Your task to perform on an android device: Open privacy settings Image 0: 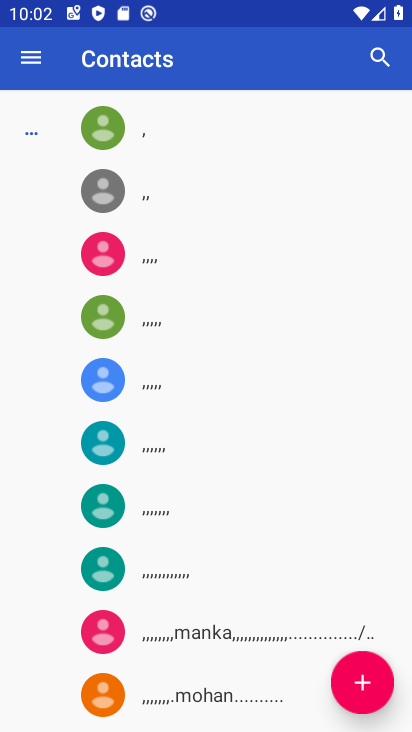
Step 0: press home button
Your task to perform on an android device: Open privacy settings Image 1: 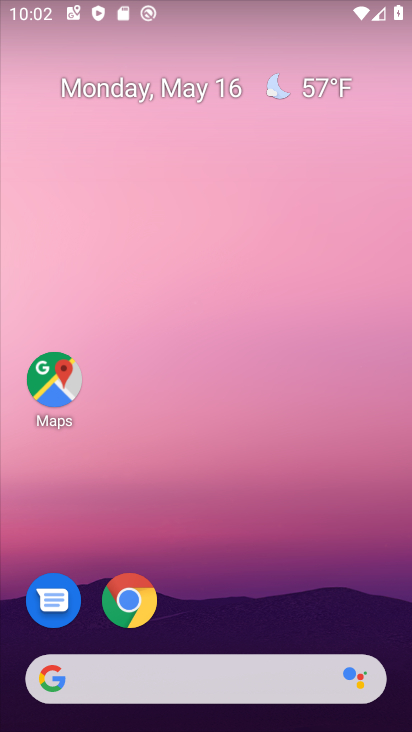
Step 1: drag from (369, 580) to (334, 190)
Your task to perform on an android device: Open privacy settings Image 2: 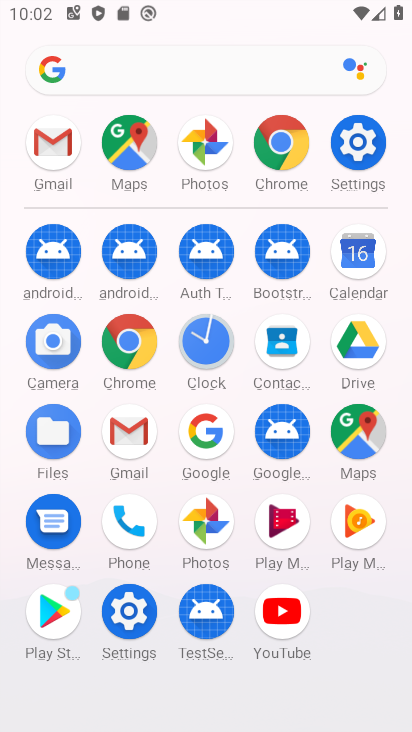
Step 2: click (357, 156)
Your task to perform on an android device: Open privacy settings Image 3: 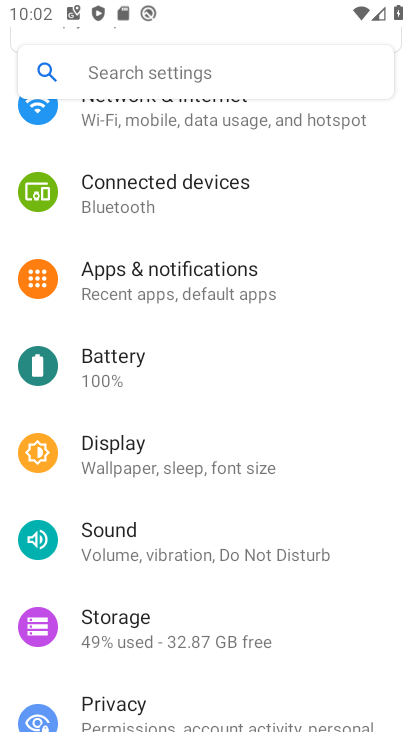
Step 3: click (272, 312)
Your task to perform on an android device: Open privacy settings Image 4: 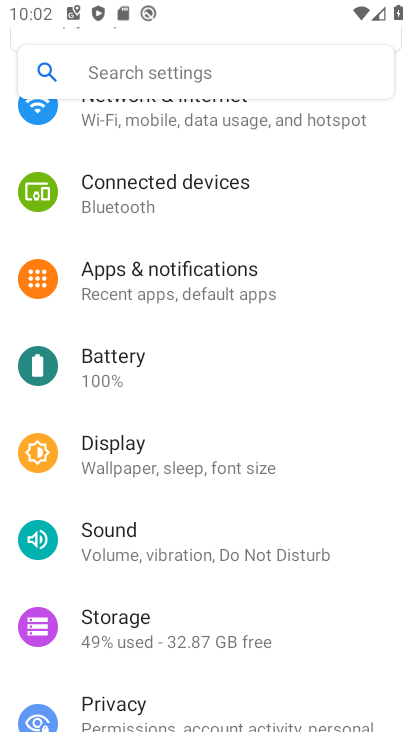
Step 4: click (153, 713)
Your task to perform on an android device: Open privacy settings Image 5: 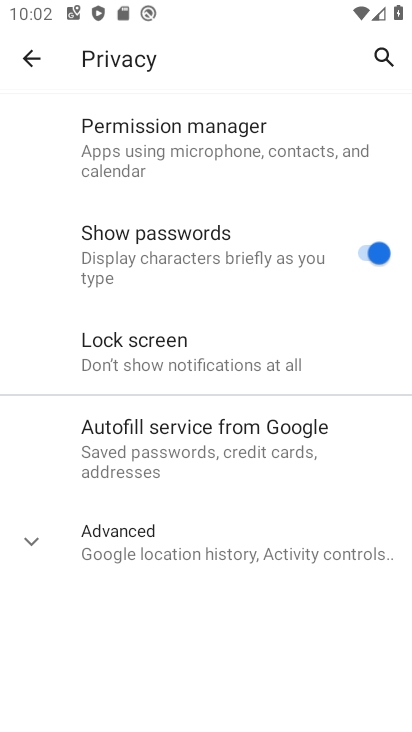
Step 5: task complete